Your task to perform on an android device: find snoozed emails in the gmail app Image 0: 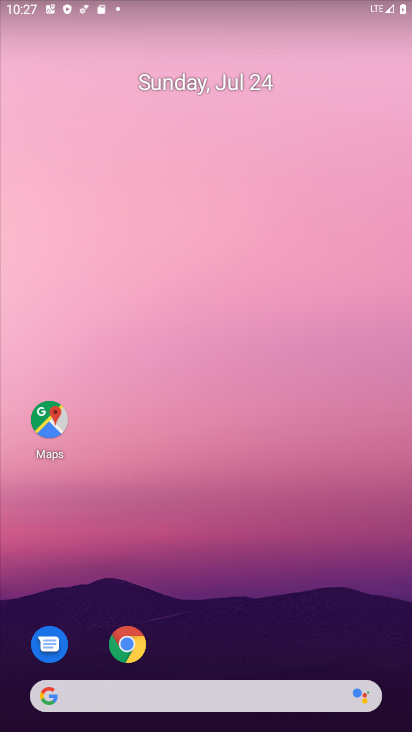
Step 0: drag from (26, 572) to (216, 72)
Your task to perform on an android device: find snoozed emails in the gmail app Image 1: 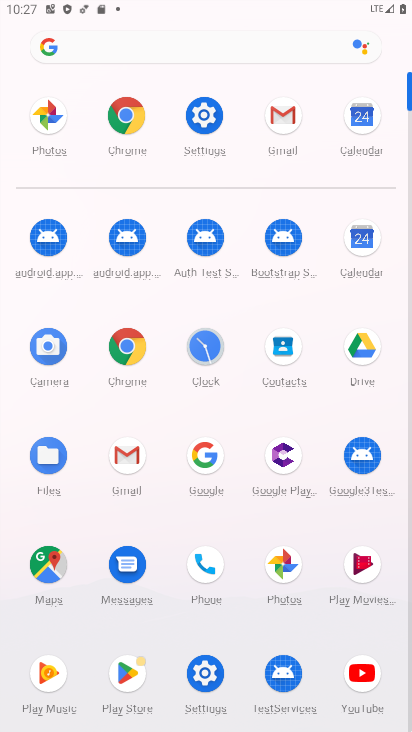
Step 1: click (289, 112)
Your task to perform on an android device: find snoozed emails in the gmail app Image 2: 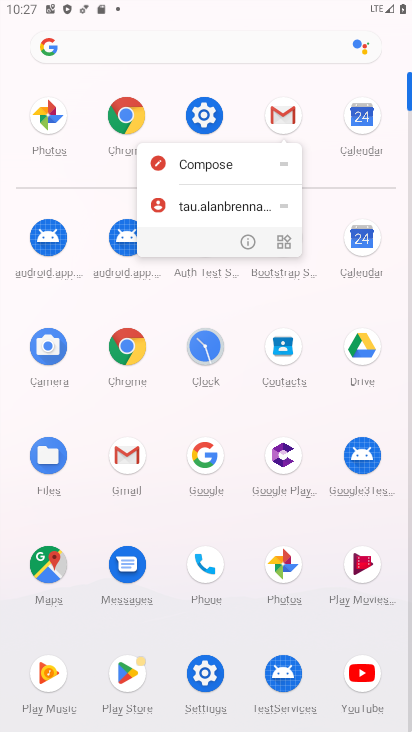
Step 2: click (289, 112)
Your task to perform on an android device: find snoozed emails in the gmail app Image 3: 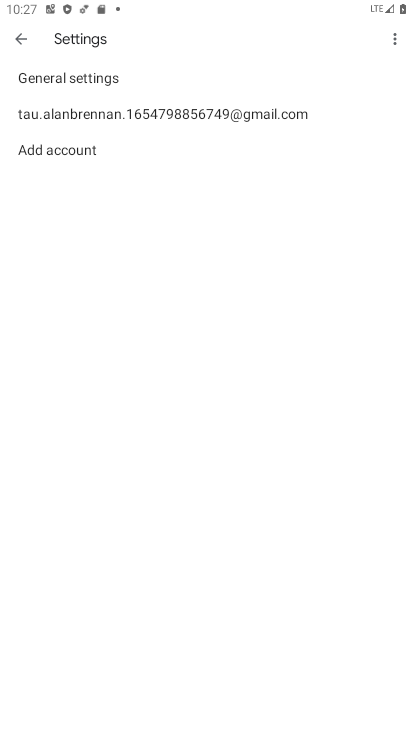
Step 3: click (227, 105)
Your task to perform on an android device: find snoozed emails in the gmail app Image 4: 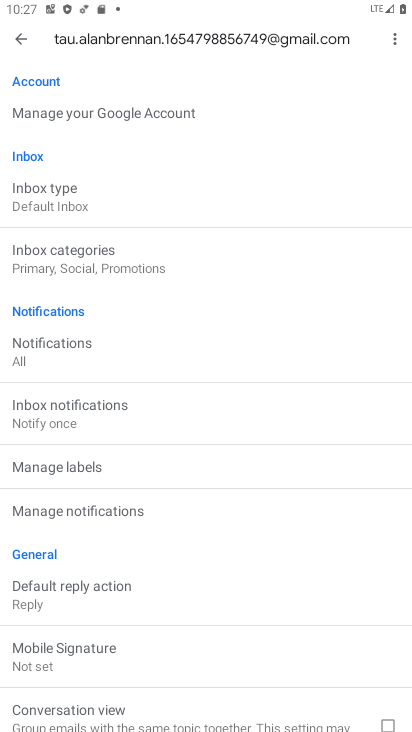
Step 4: click (24, 43)
Your task to perform on an android device: find snoozed emails in the gmail app Image 5: 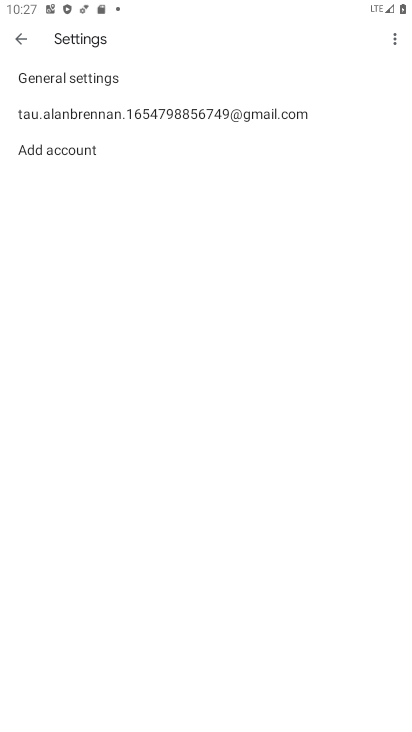
Step 5: click (24, 43)
Your task to perform on an android device: find snoozed emails in the gmail app Image 6: 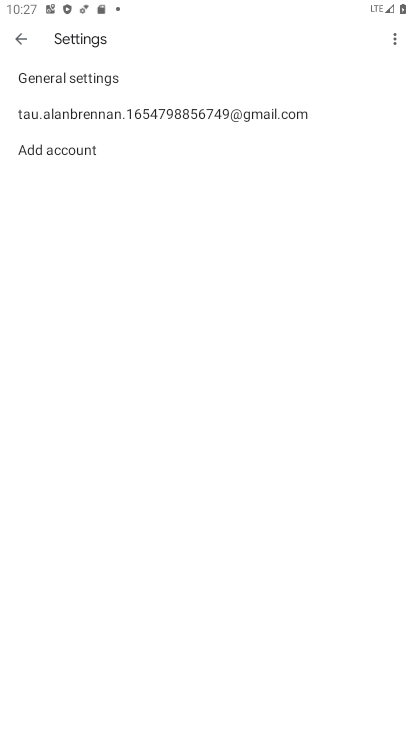
Step 6: click (23, 39)
Your task to perform on an android device: find snoozed emails in the gmail app Image 7: 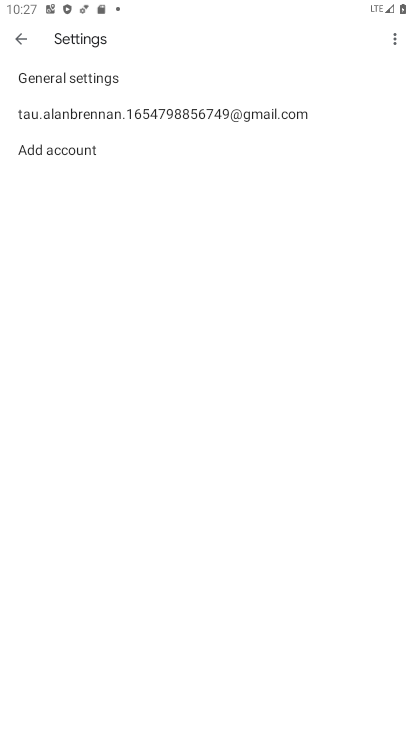
Step 7: click (20, 37)
Your task to perform on an android device: find snoozed emails in the gmail app Image 8: 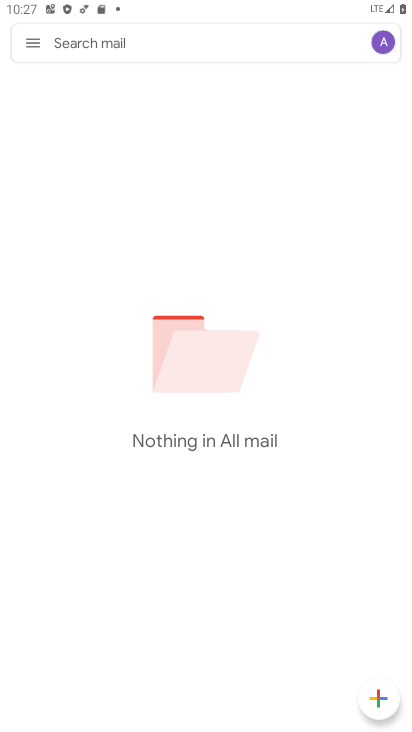
Step 8: click (34, 37)
Your task to perform on an android device: find snoozed emails in the gmail app Image 9: 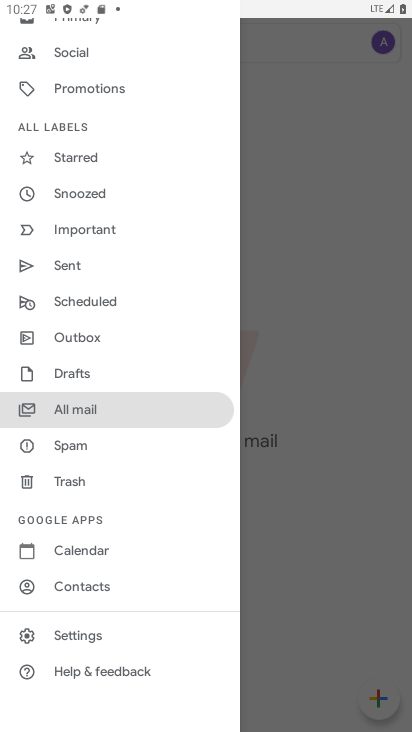
Step 9: task complete